Your task to perform on an android device: Open privacy settings Image 0: 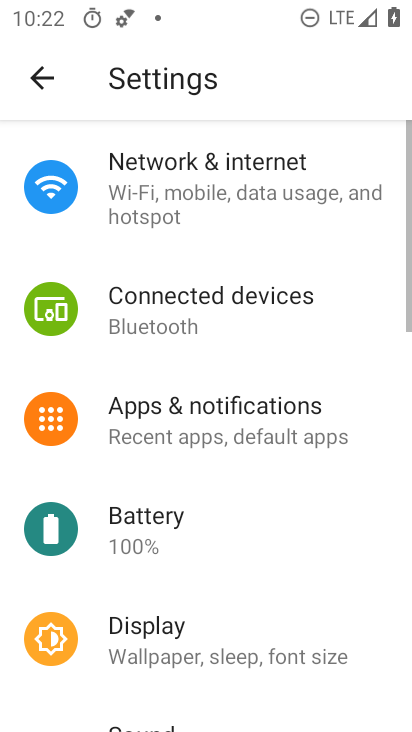
Step 0: press home button
Your task to perform on an android device: Open privacy settings Image 1: 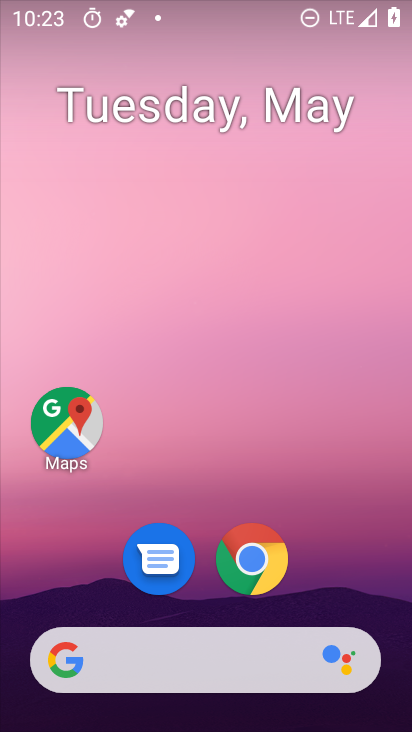
Step 1: drag from (392, 649) to (305, 6)
Your task to perform on an android device: Open privacy settings Image 2: 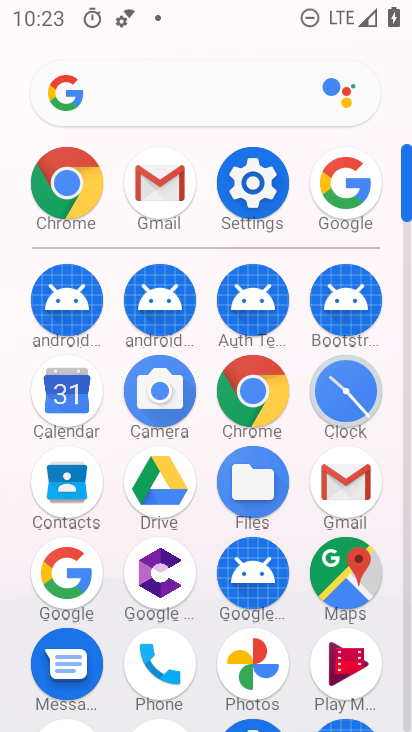
Step 2: click (267, 180)
Your task to perform on an android device: Open privacy settings Image 3: 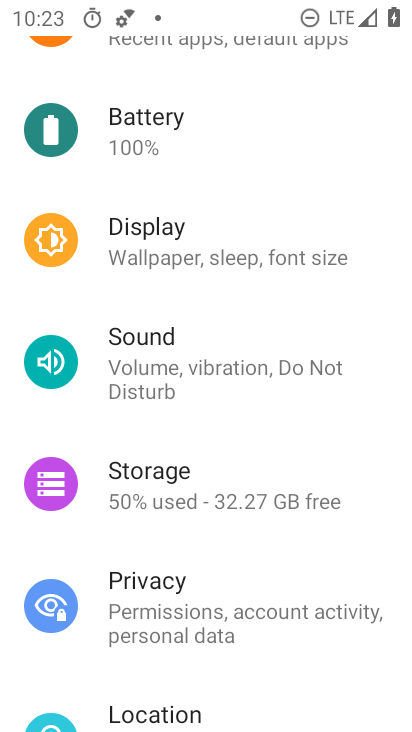
Step 3: click (255, 622)
Your task to perform on an android device: Open privacy settings Image 4: 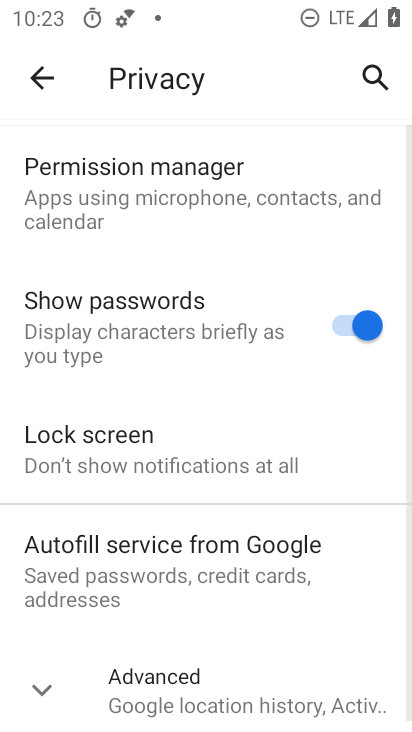
Step 4: task complete